Your task to perform on an android device: Turn off the flashlight Image 0: 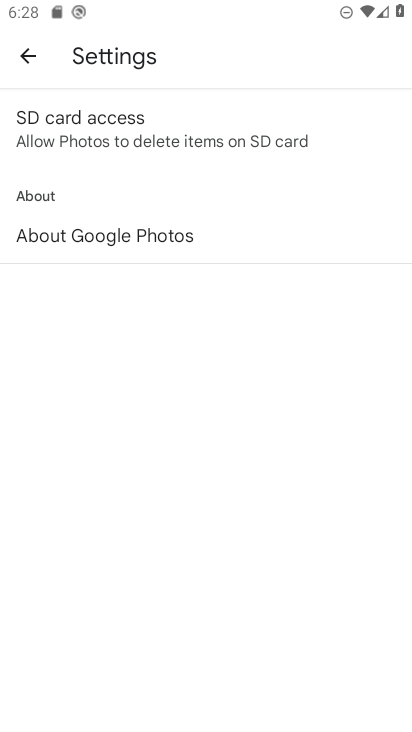
Step 0: press home button
Your task to perform on an android device: Turn off the flashlight Image 1: 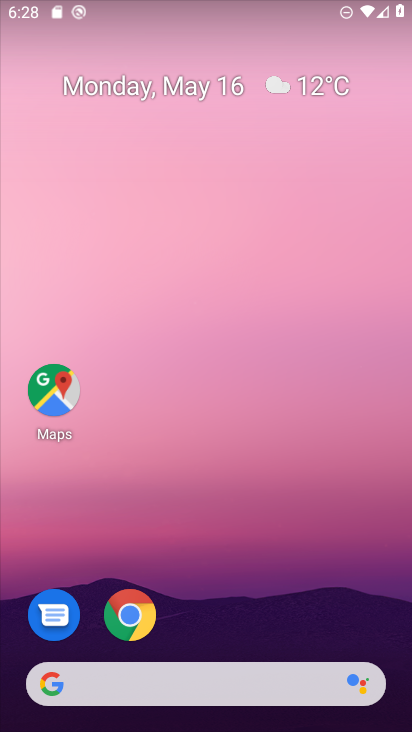
Step 1: drag from (216, 637) to (299, 95)
Your task to perform on an android device: Turn off the flashlight Image 2: 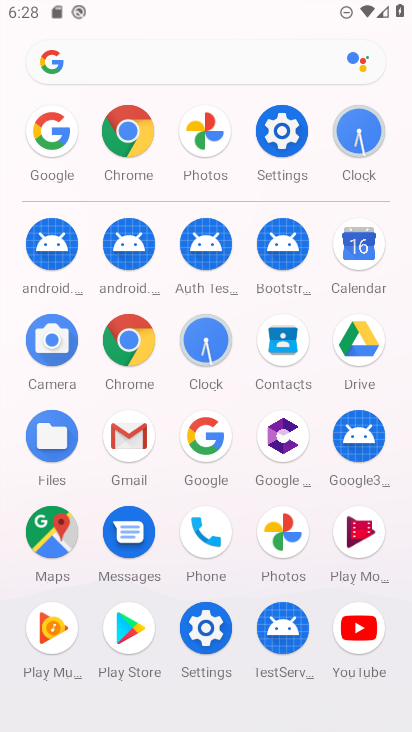
Step 2: click (289, 146)
Your task to perform on an android device: Turn off the flashlight Image 3: 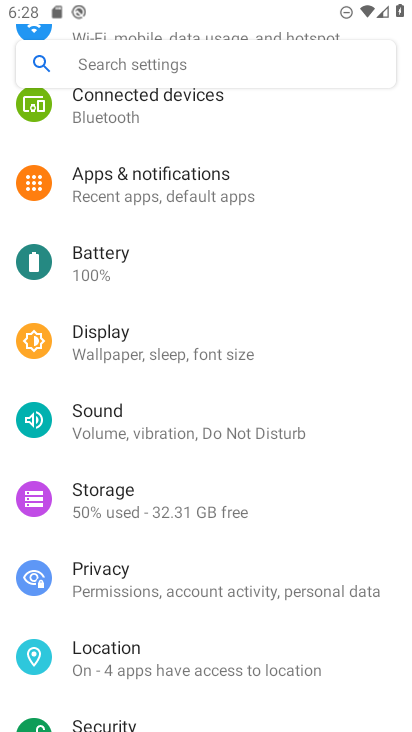
Step 3: task complete